Your task to perform on an android device: Go to display settings Image 0: 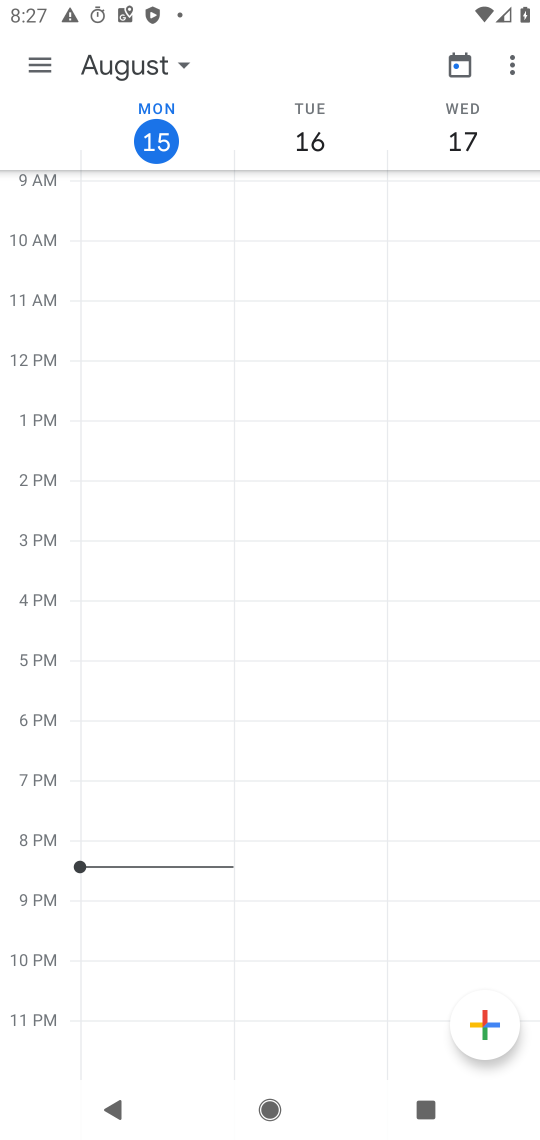
Step 0: press home button
Your task to perform on an android device: Go to display settings Image 1: 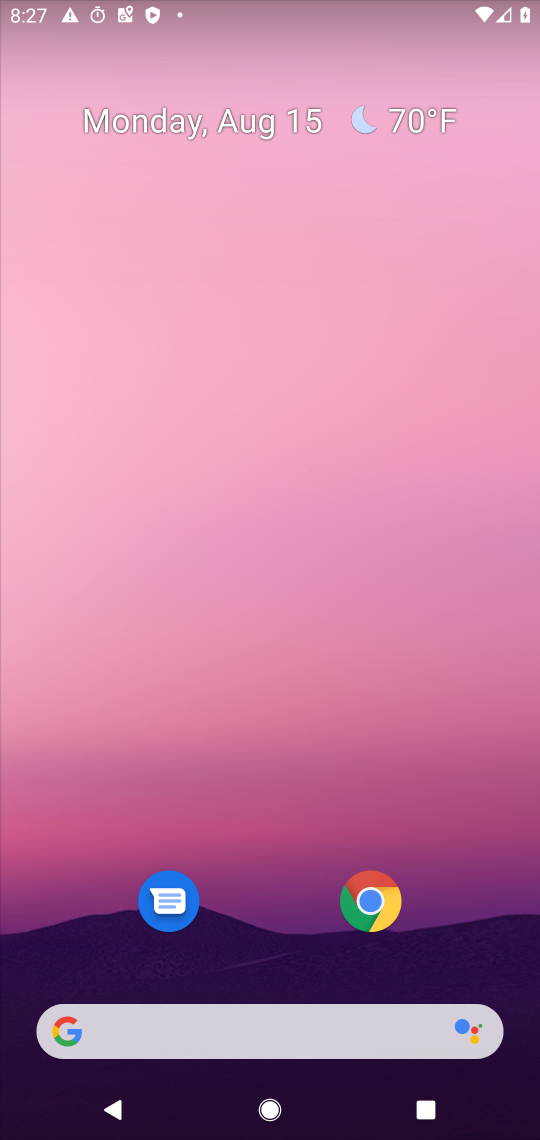
Step 1: drag from (240, 949) to (292, 236)
Your task to perform on an android device: Go to display settings Image 2: 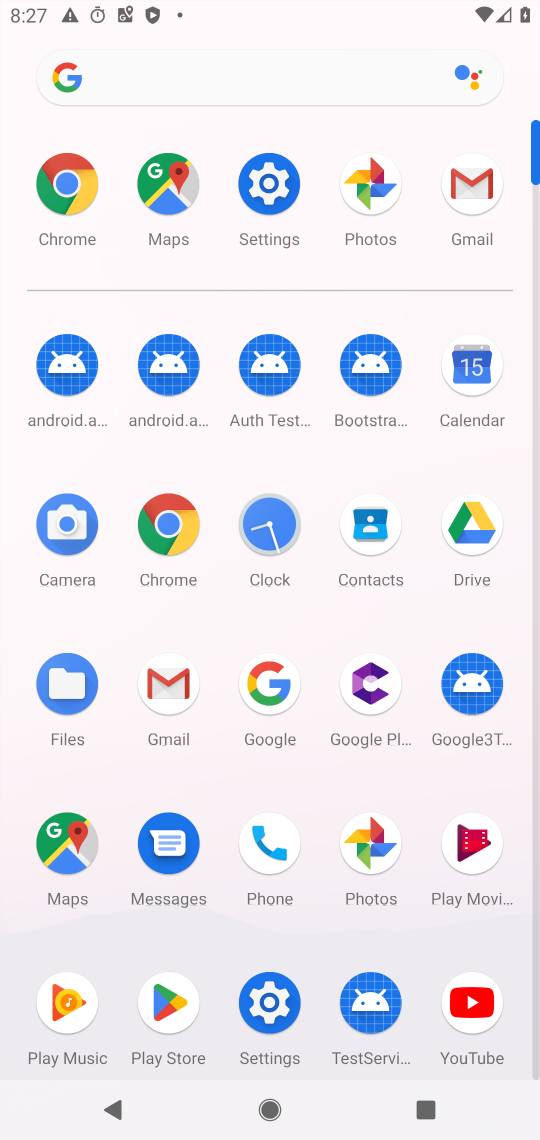
Step 2: click (274, 1010)
Your task to perform on an android device: Go to display settings Image 3: 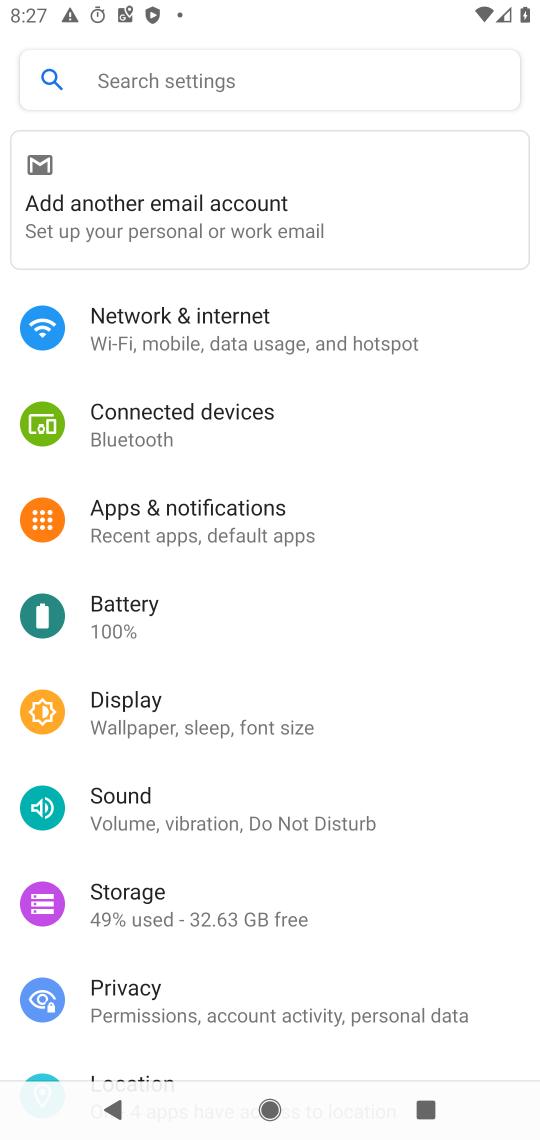
Step 3: click (161, 719)
Your task to perform on an android device: Go to display settings Image 4: 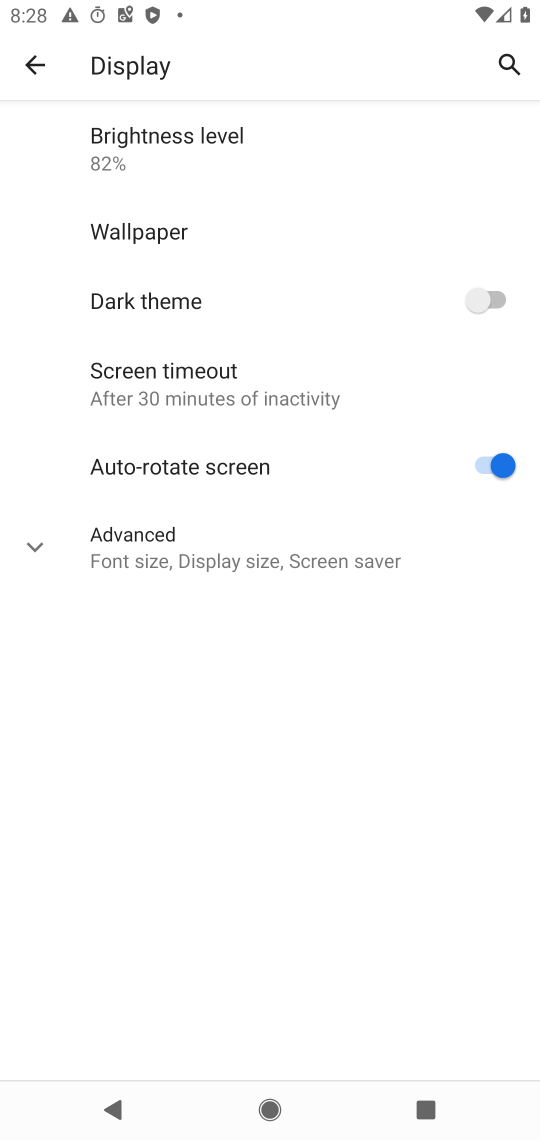
Step 4: task complete